Your task to perform on an android device: Open Wikipedia Image 0: 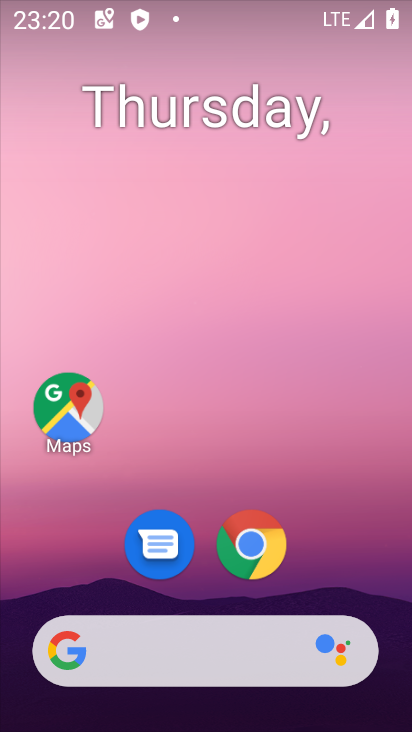
Step 0: drag from (295, 517) to (284, 198)
Your task to perform on an android device: Open Wikipedia Image 1: 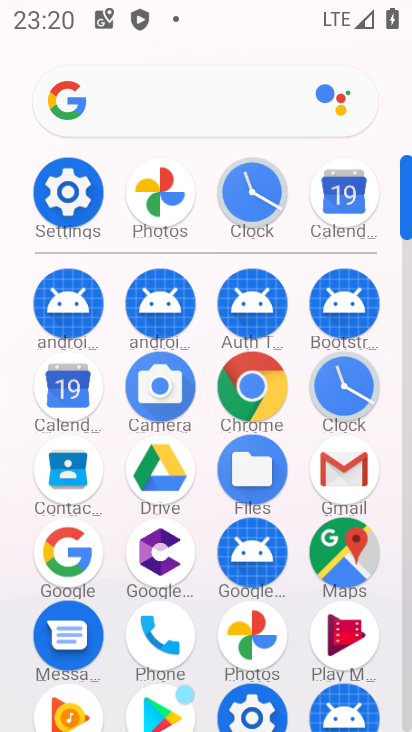
Step 1: click (234, 396)
Your task to perform on an android device: Open Wikipedia Image 2: 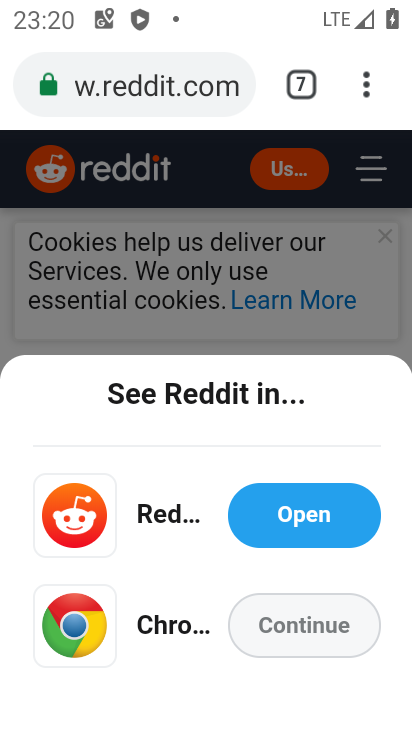
Step 2: click (300, 111)
Your task to perform on an android device: Open Wikipedia Image 3: 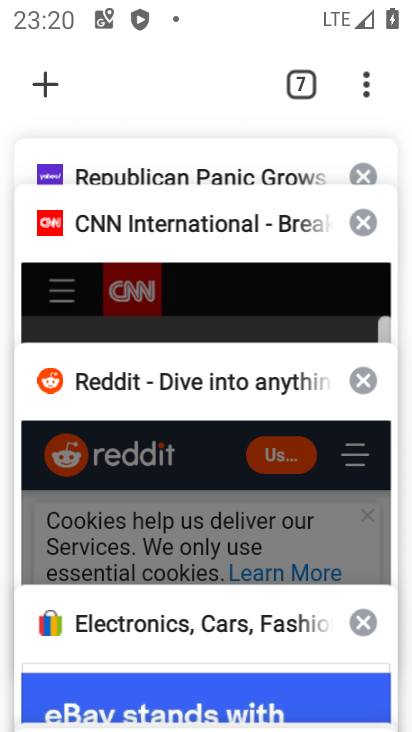
Step 3: click (45, 74)
Your task to perform on an android device: Open Wikipedia Image 4: 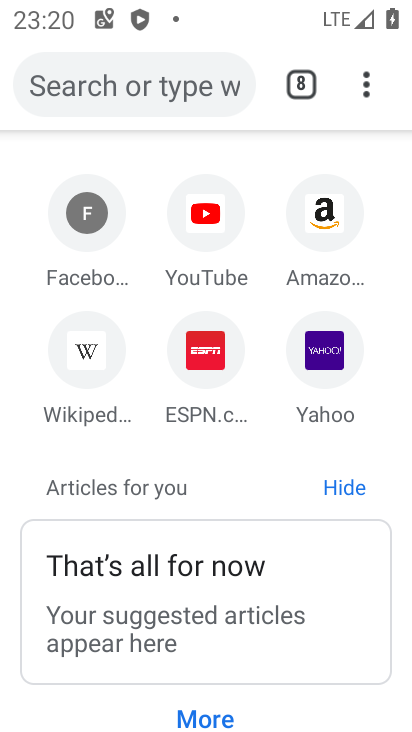
Step 4: click (61, 348)
Your task to perform on an android device: Open Wikipedia Image 5: 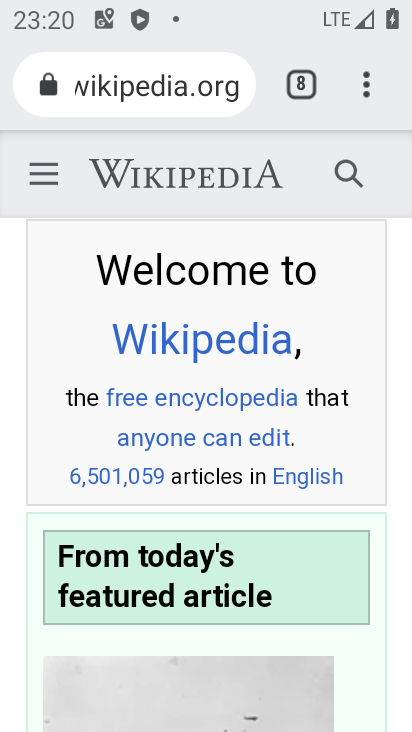
Step 5: task complete